Your task to perform on an android device: toggle wifi Image 0: 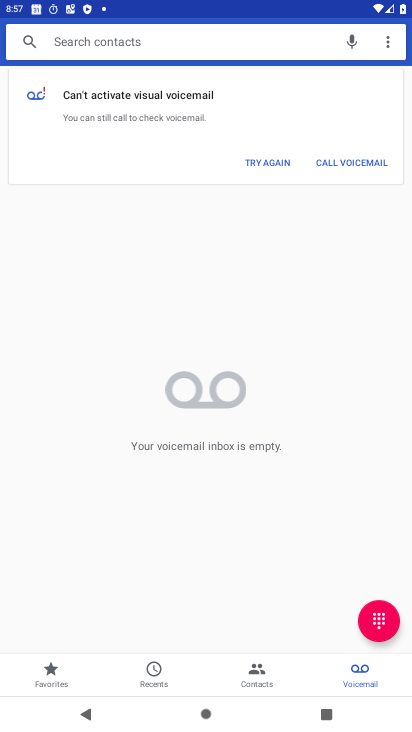
Step 0: press home button
Your task to perform on an android device: toggle wifi Image 1: 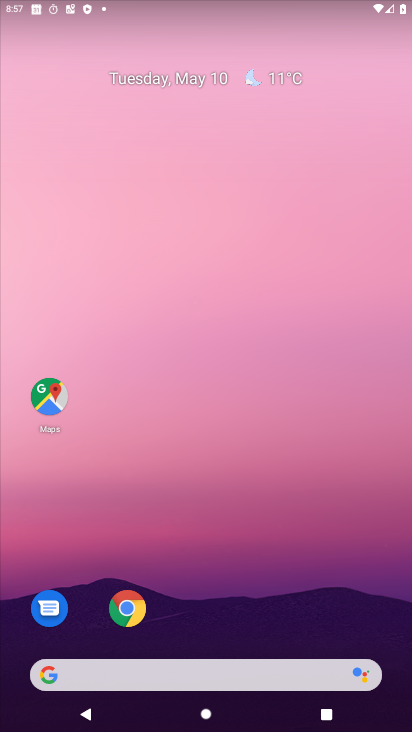
Step 1: drag from (164, 674) to (89, 4)
Your task to perform on an android device: toggle wifi Image 2: 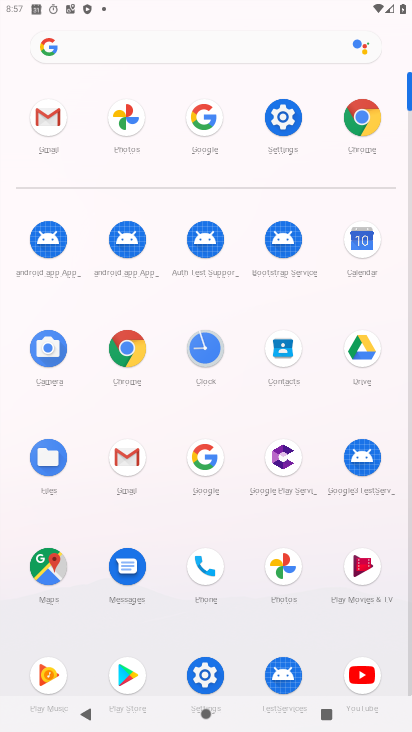
Step 2: click (277, 117)
Your task to perform on an android device: toggle wifi Image 3: 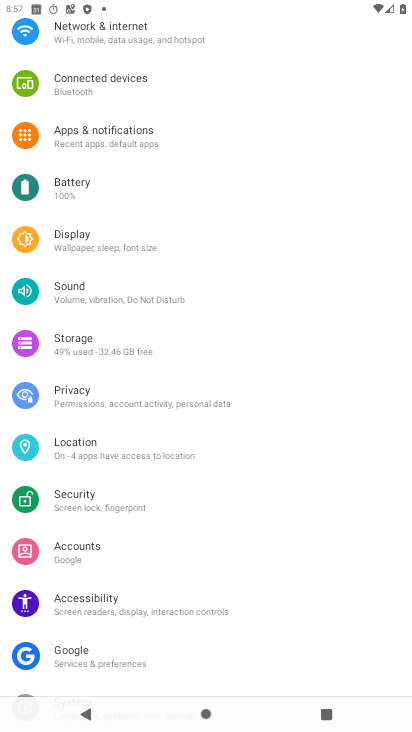
Step 3: drag from (118, 92) to (188, 460)
Your task to perform on an android device: toggle wifi Image 4: 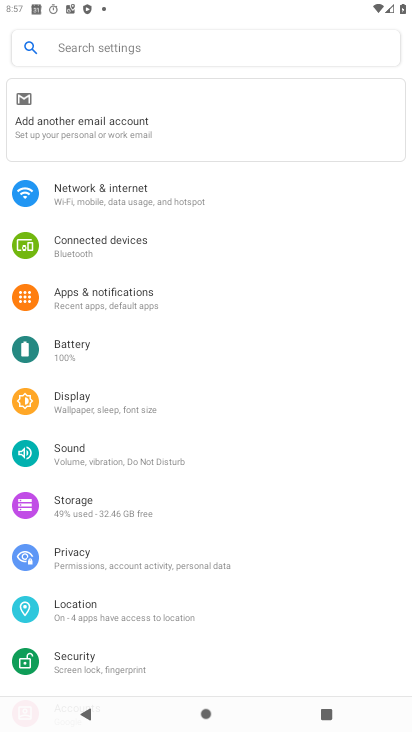
Step 4: click (109, 195)
Your task to perform on an android device: toggle wifi Image 5: 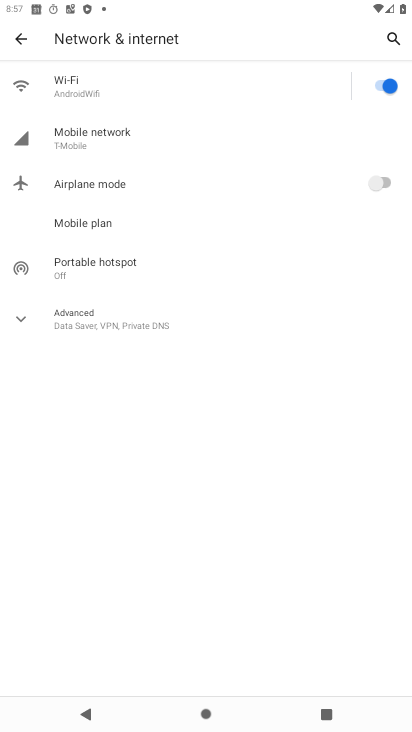
Step 5: click (379, 90)
Your task to perform on an android device: toggle wifi Image 6: 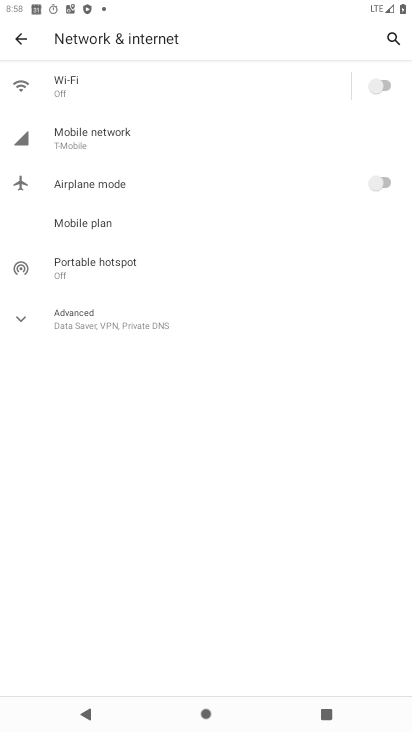
Step 6: click (384, 88)
Your task to perform on an android device: toggle wifi Image 7: 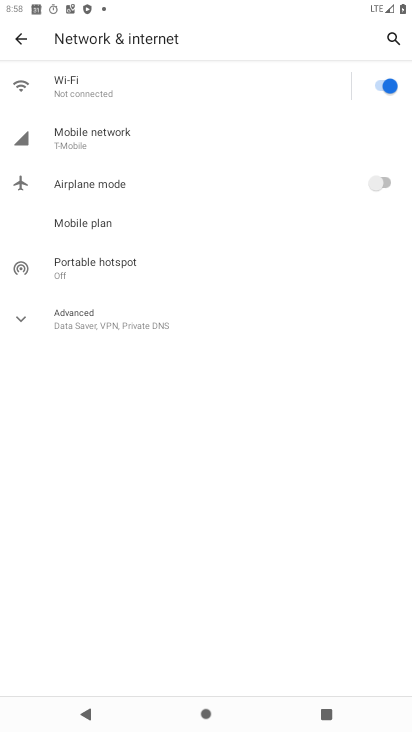
Step 7: task complete